Your task to perform on an android device: turn on wifi Image 0: 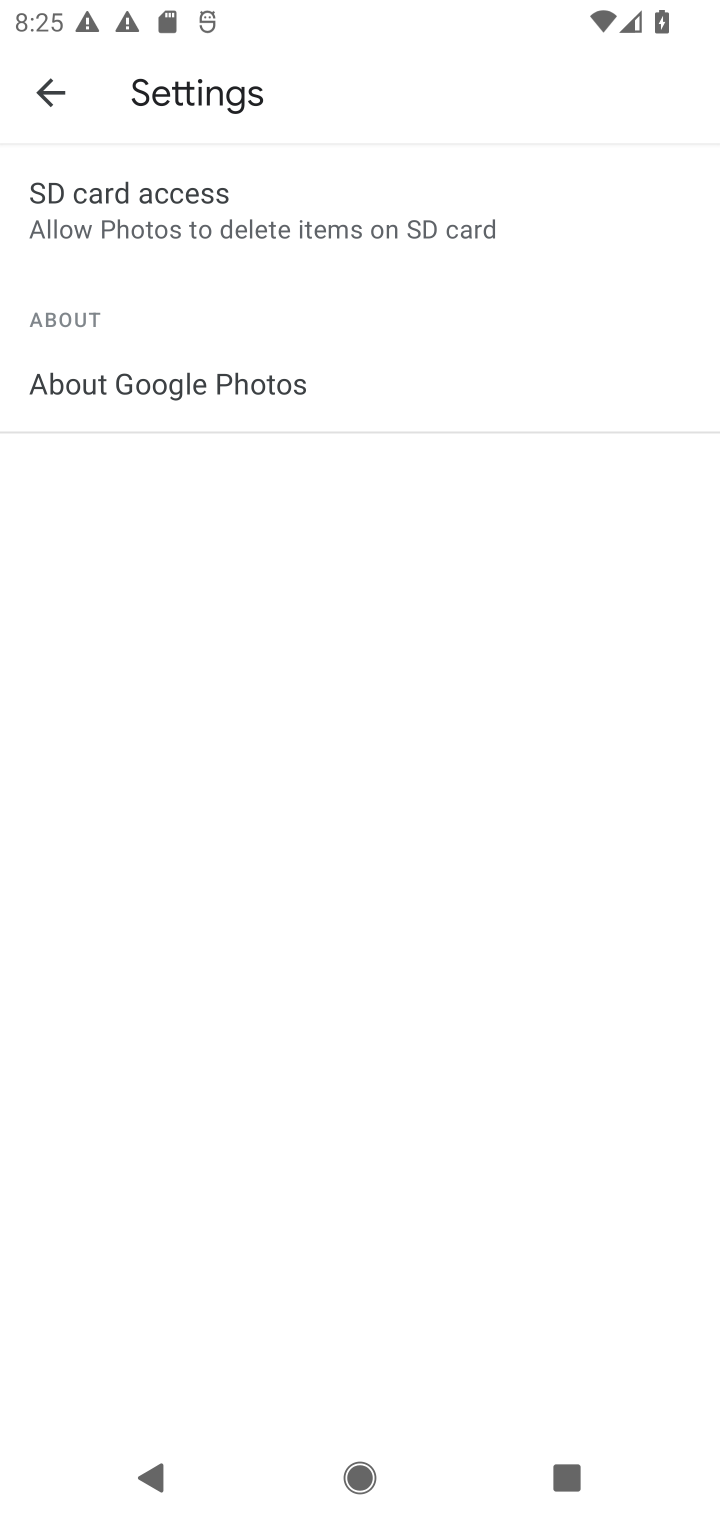
Step 0: press home button
Your task to perform on an android device: turn on wifi Image 1: 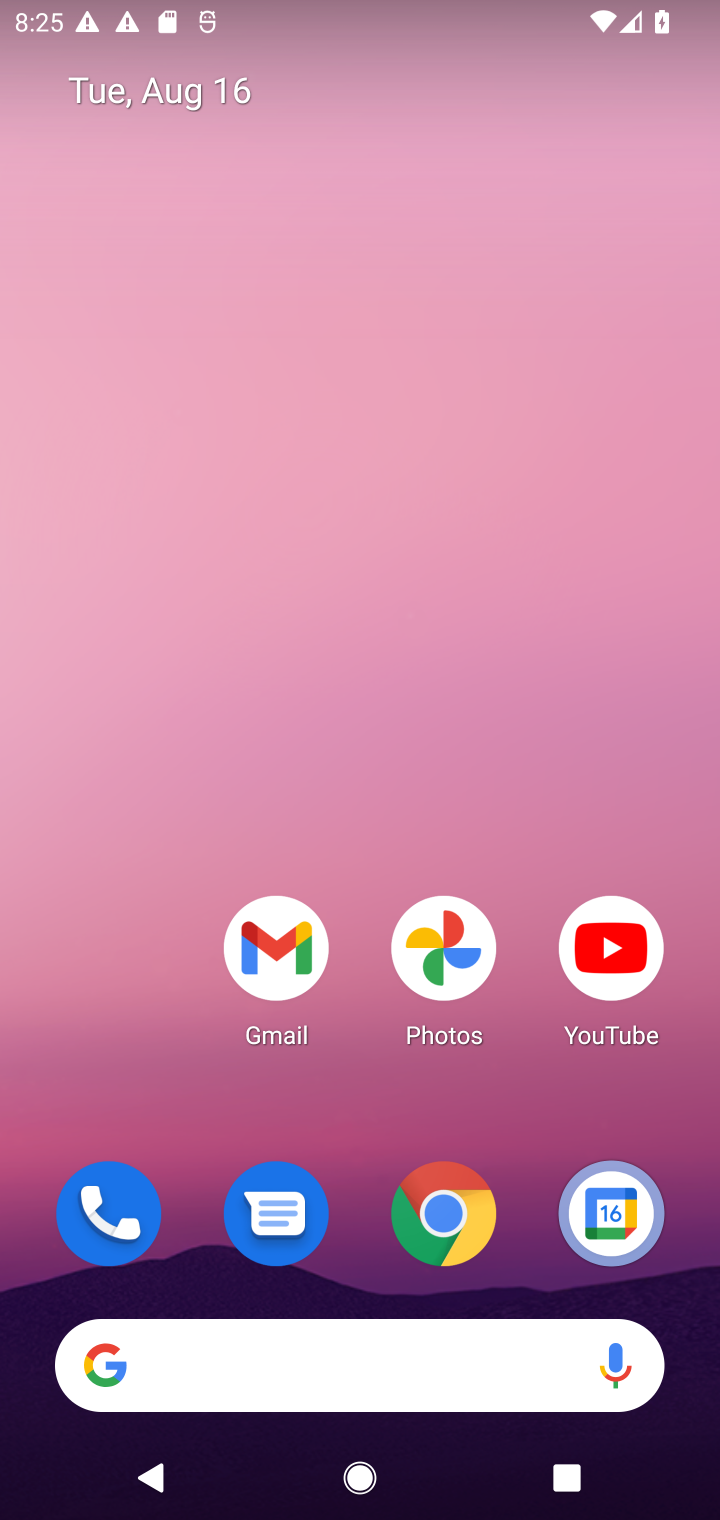
Step 1: drag from (327, 1284) to (396, 27)
Your task to perform on an android device: turn on wifi Image 2: 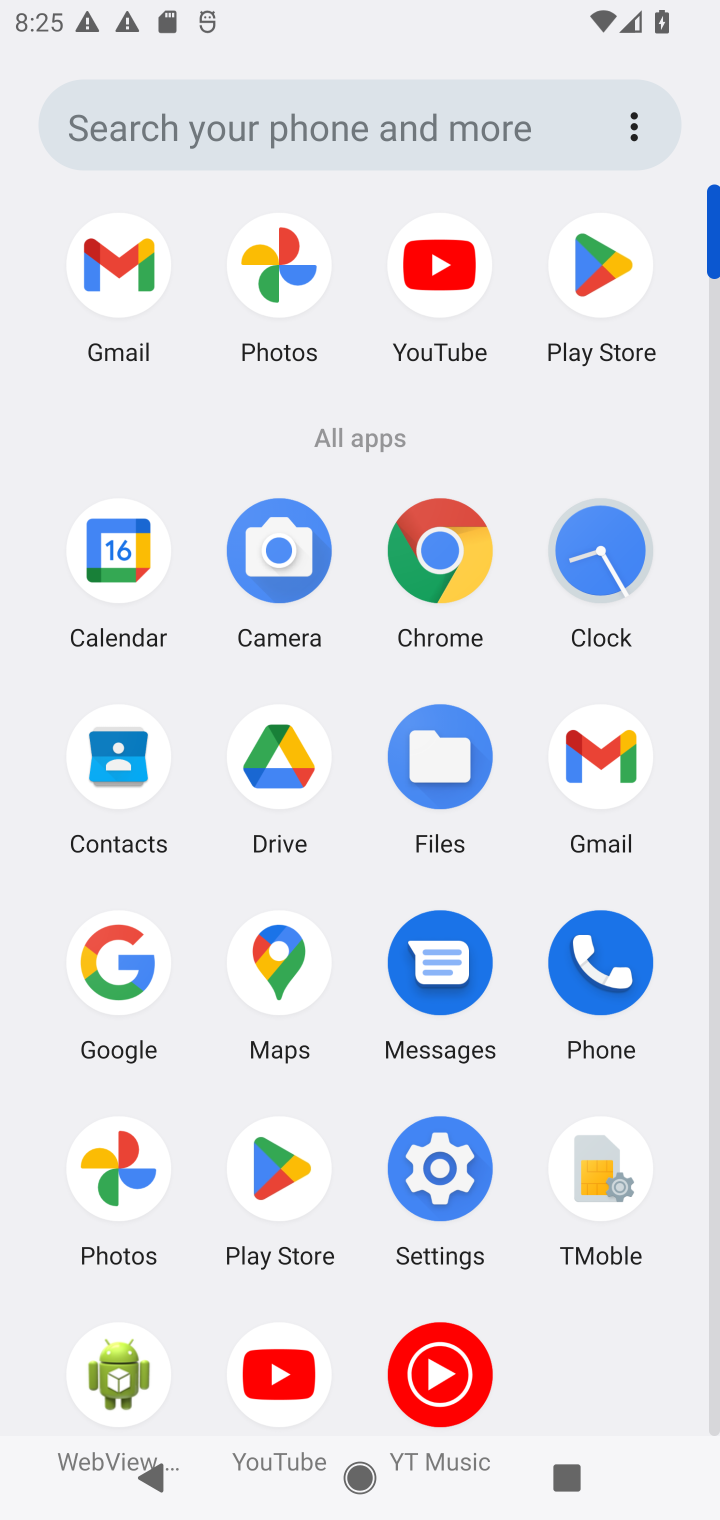
Step 2: click (433, 1145)
Your task to perform on an android device: turn on wifi Image 3: 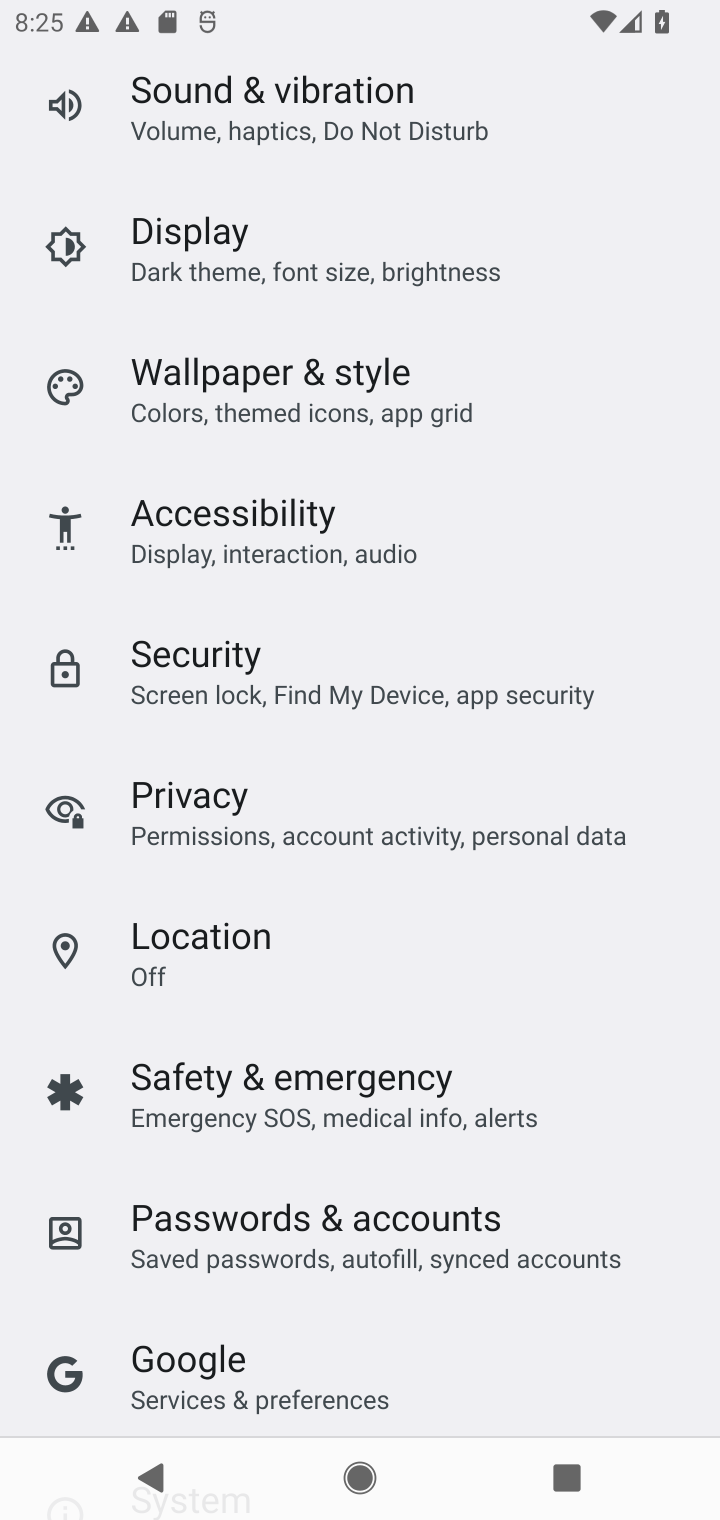
Step 3: drag from (406, 260) to (443, 1312)
Your task to perform on an android device: turn on wifi Image 4: 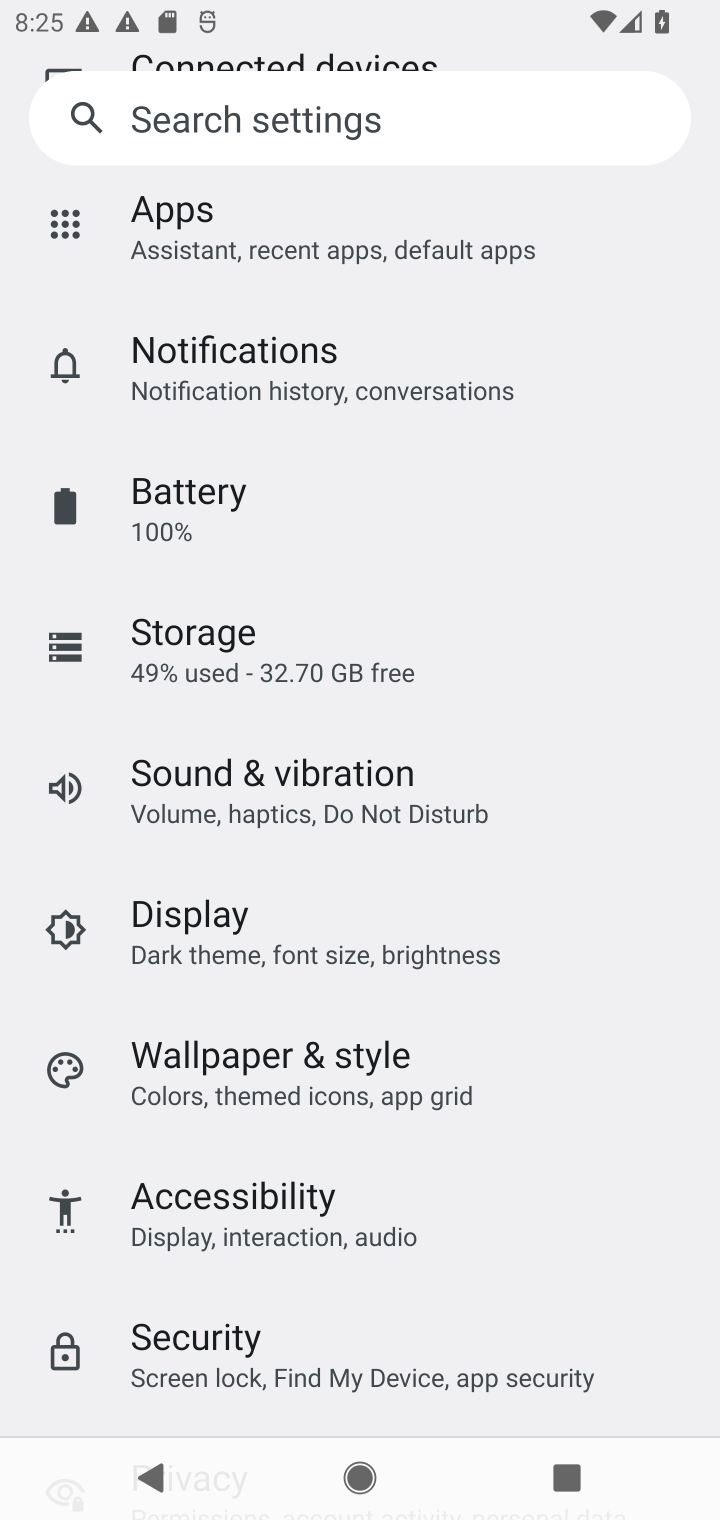
Step 4: drag from (354, 674) to (405, 1296)
Your task to perform on an android device: turn on wifi Image 5: 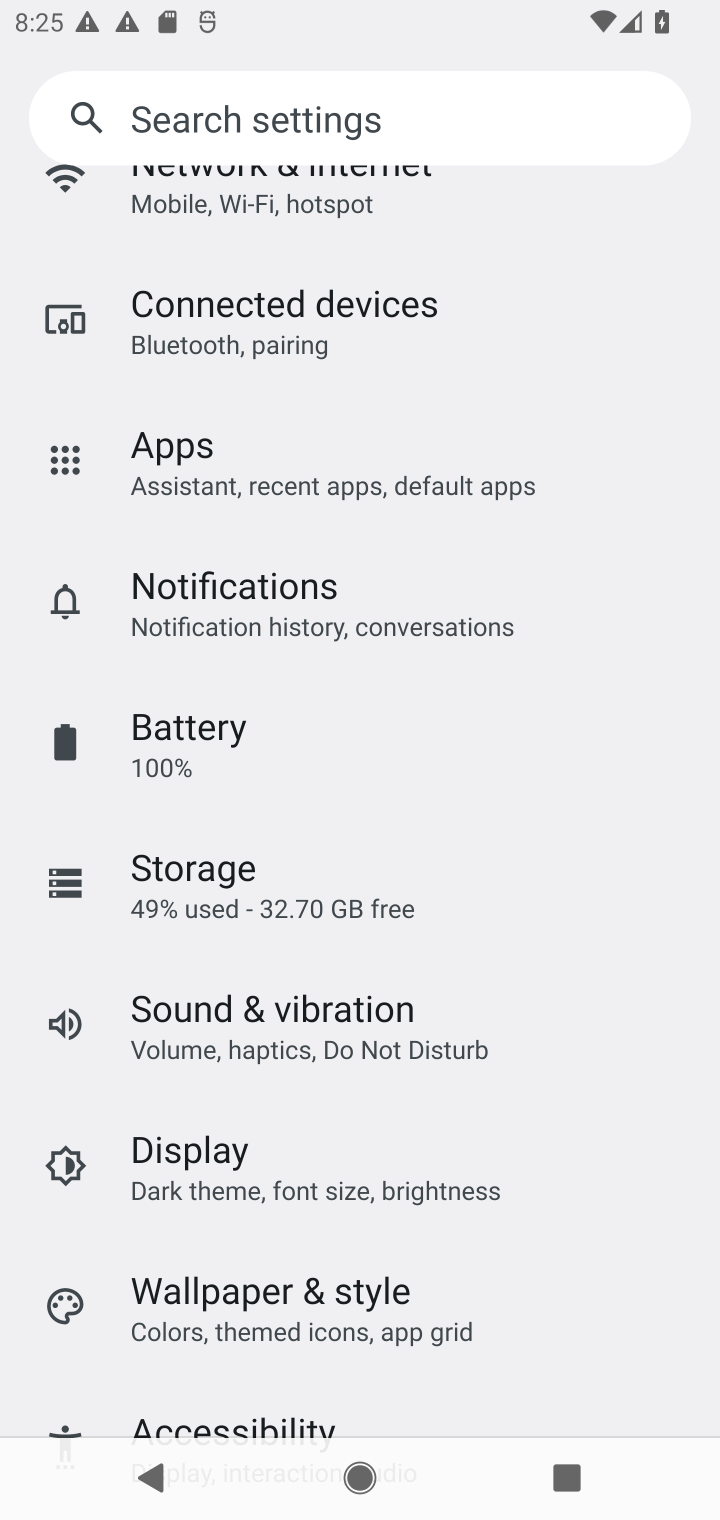
Step 5: drag from (339, 325) to (483, 1331)
Your task to perform on an android device: turn on wifi Image 6: 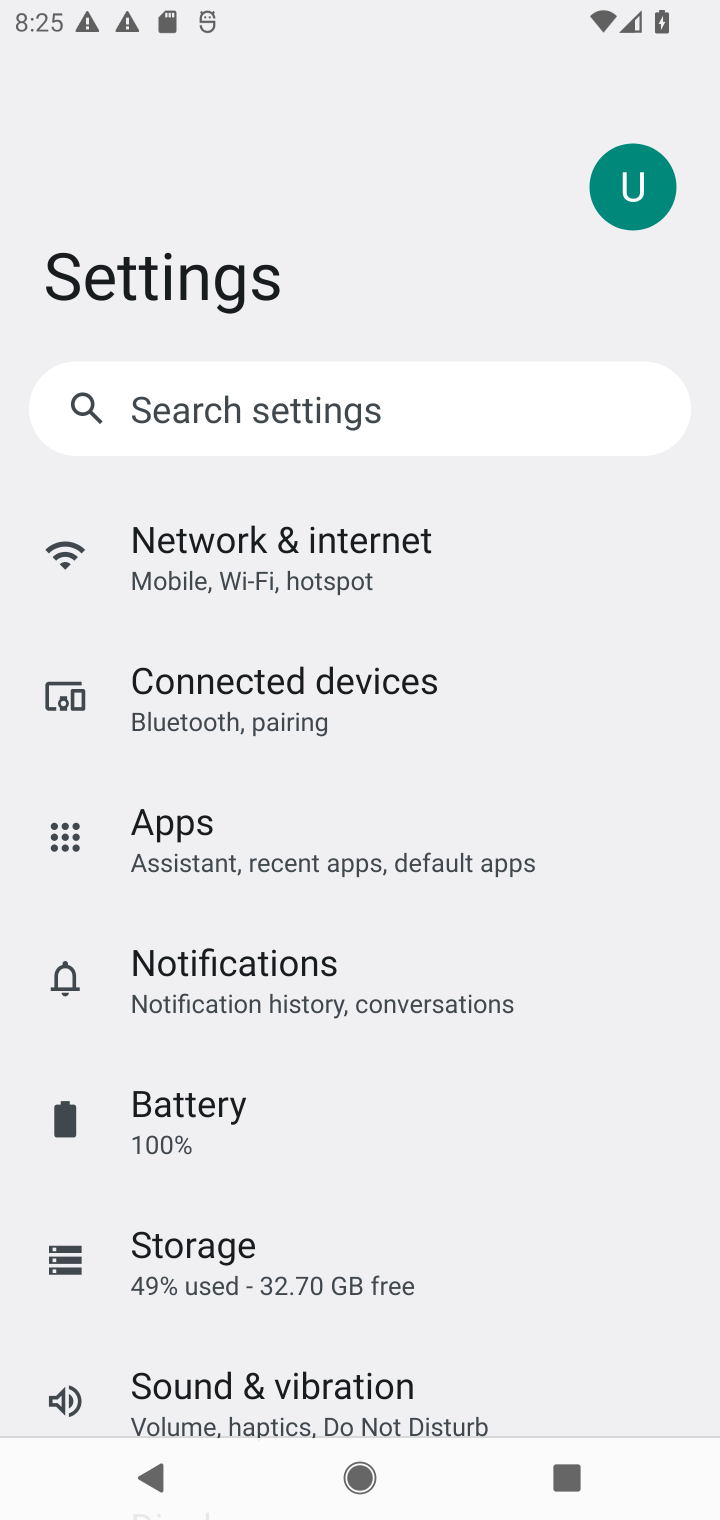
Step 6: click (269, 571)
Your task to perform on an android device: turn on wifi Image 7: 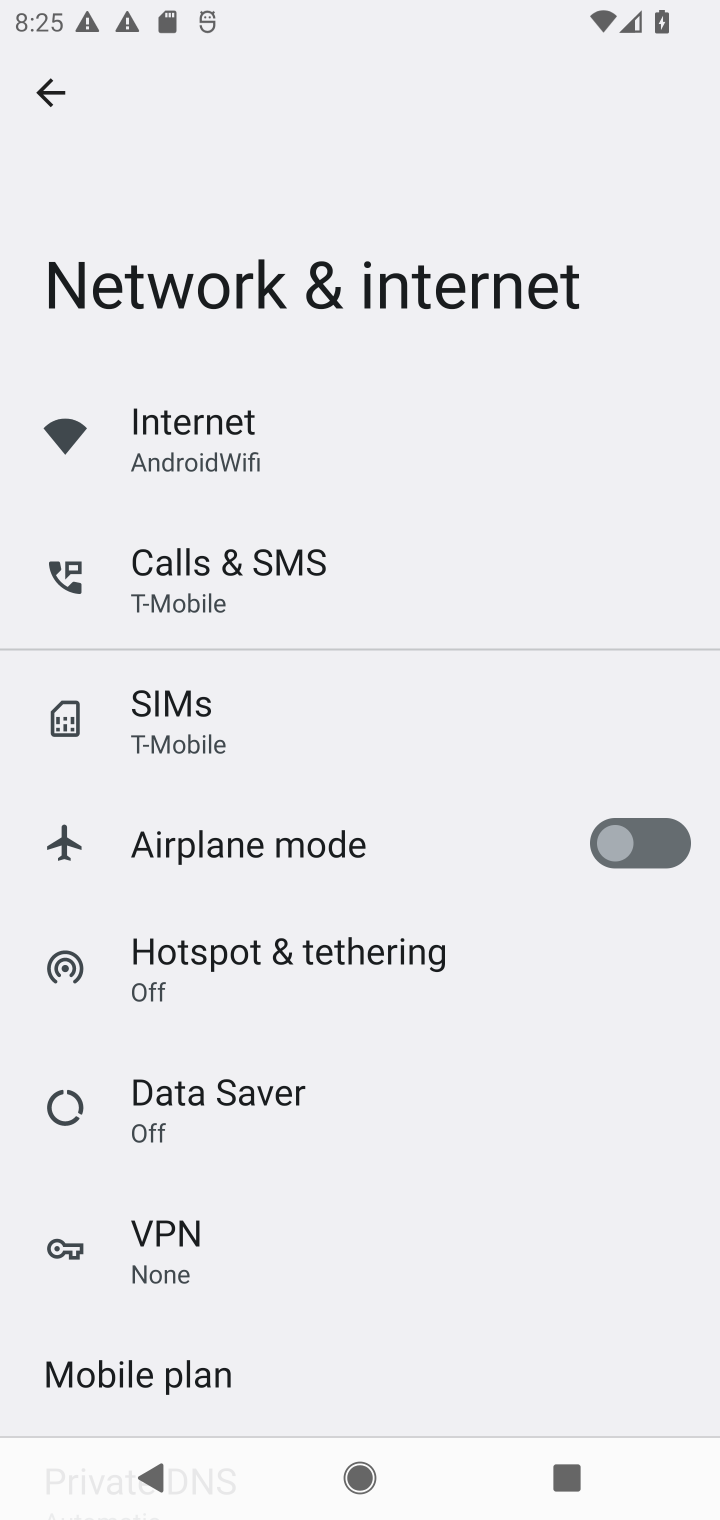
Step 7: click (251, 420)
Your task to perform on an android device: turn on wifi Image 8: 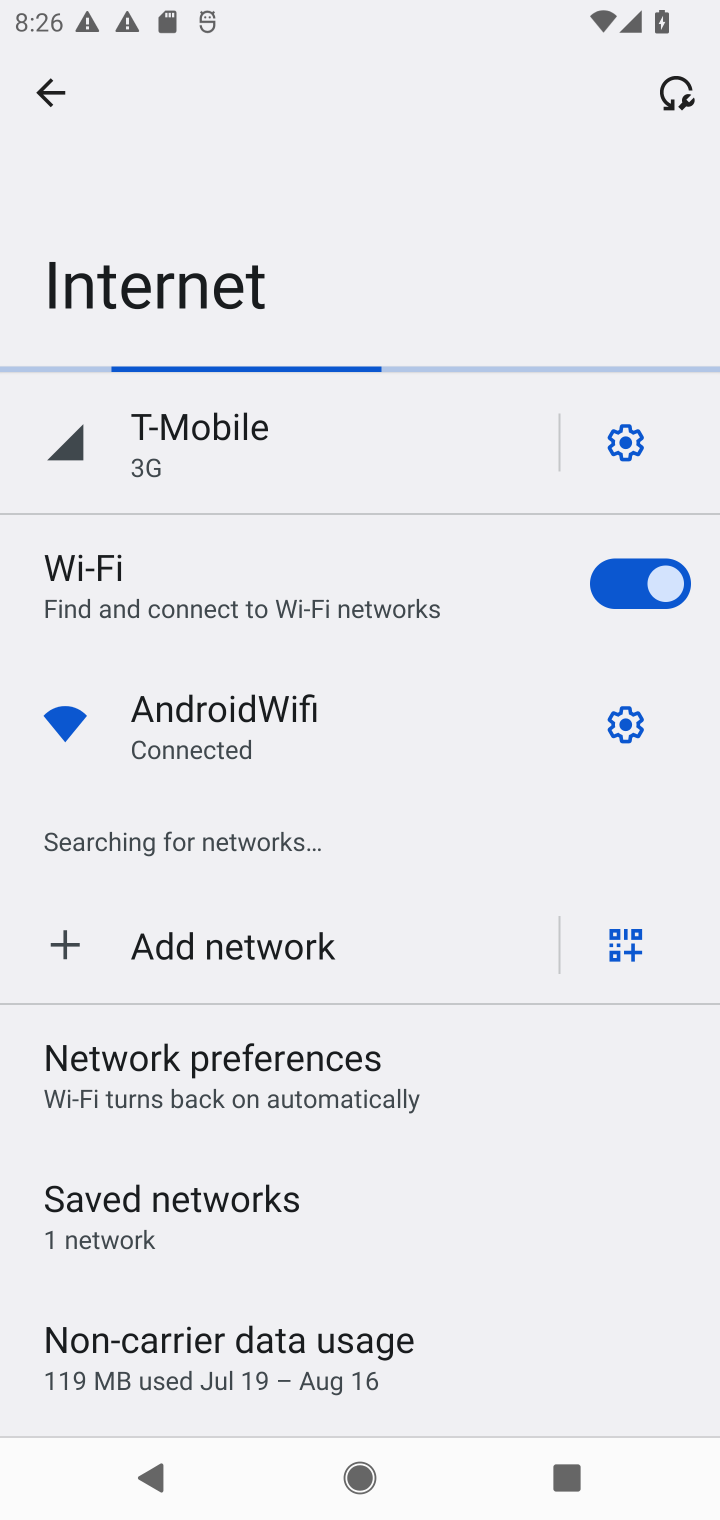
Step 8: task complete